Your task to perform on an android device: Play the new Bruno Mars video on YouTube Image 0: 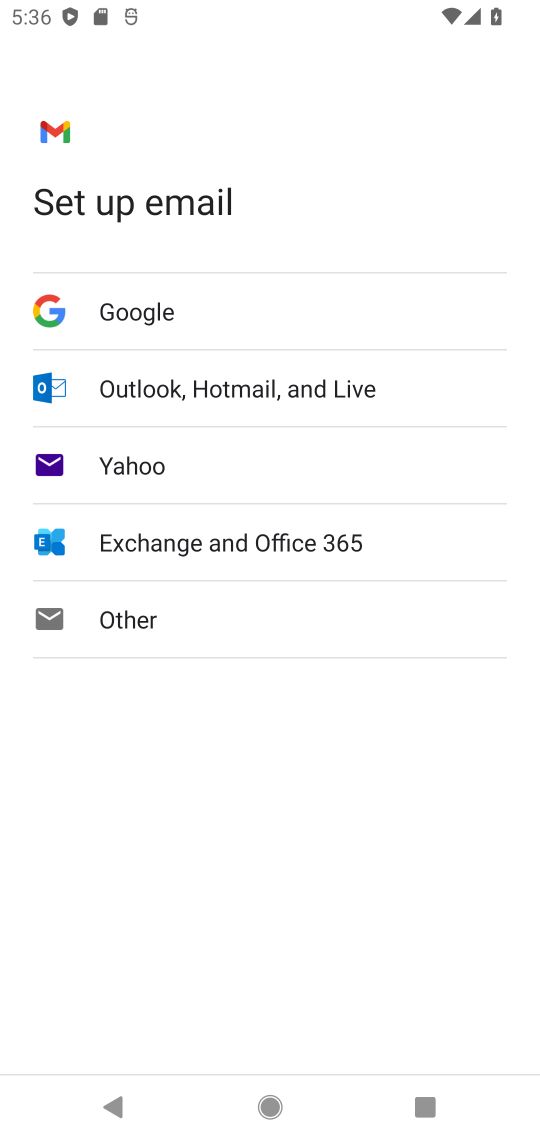
Step 0: press home button
Your task to perform on an android device: Play the new Bruno Mars video on YouTube Image 1: 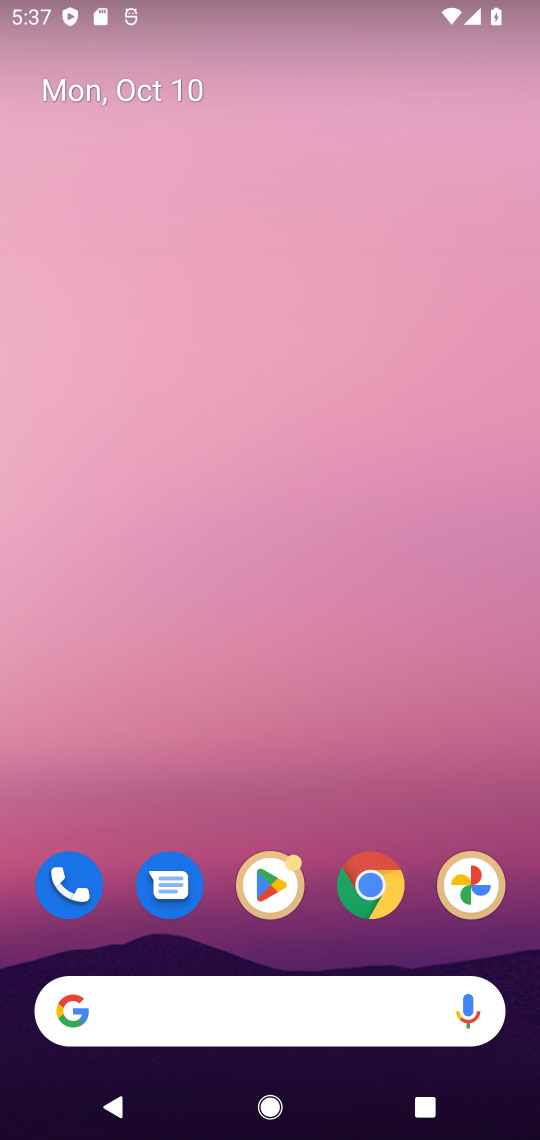
Step 1: drag from (360, 946) to (353, 293)
Your task to perform on an android device: Play the new Bruno Mars video on YouTube Image 2: 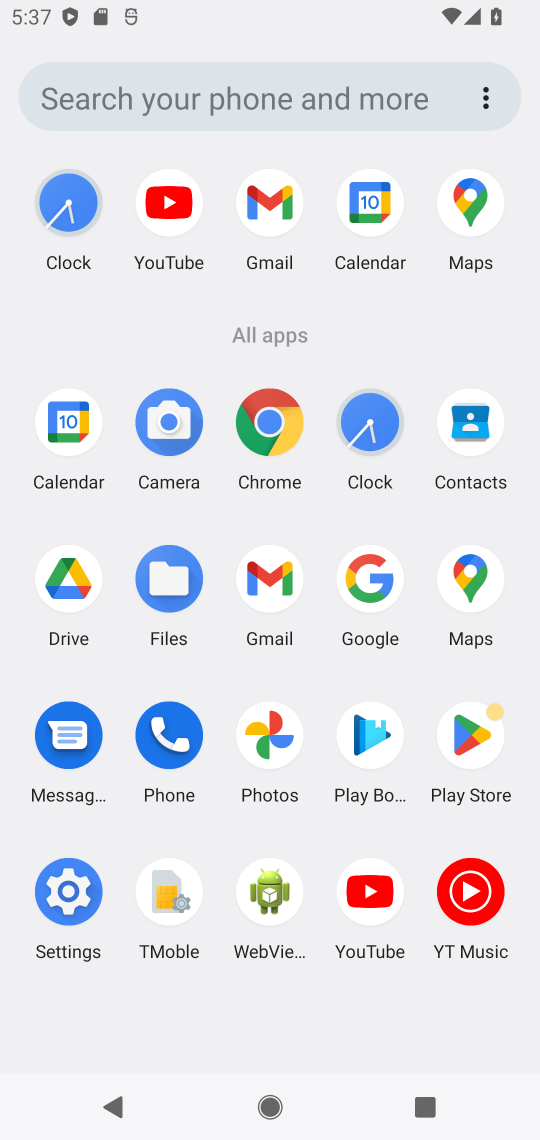
Step 2: click (175, 210)
Your task to perform on an android device: Play the new Bruno Mars video on YouTube Image 3: 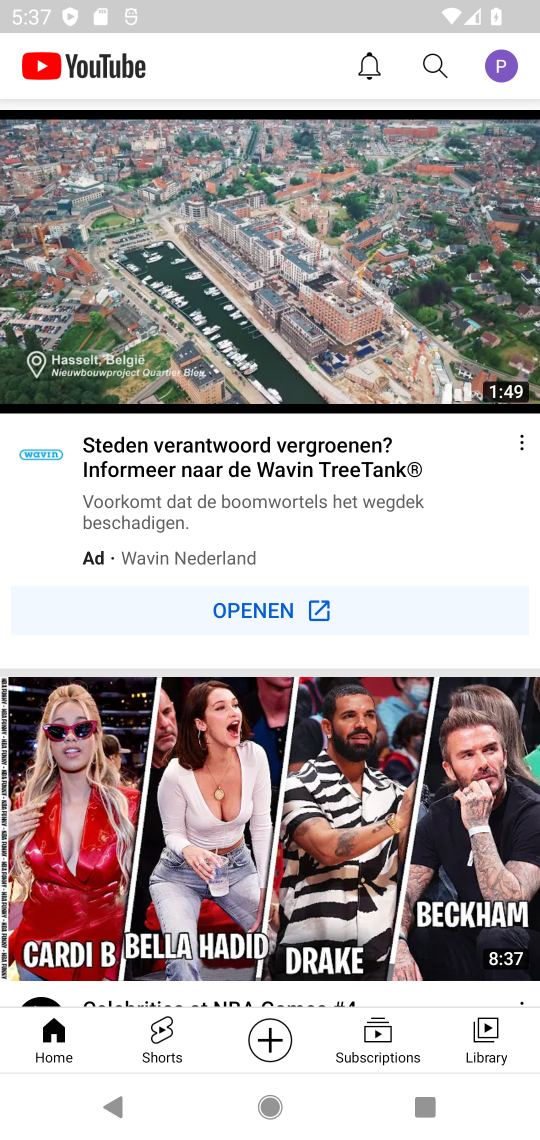
Step 3: click (441, 64)
Your task to perform on an android device: Play the new Bruno Mars video on YouTube Image 4: 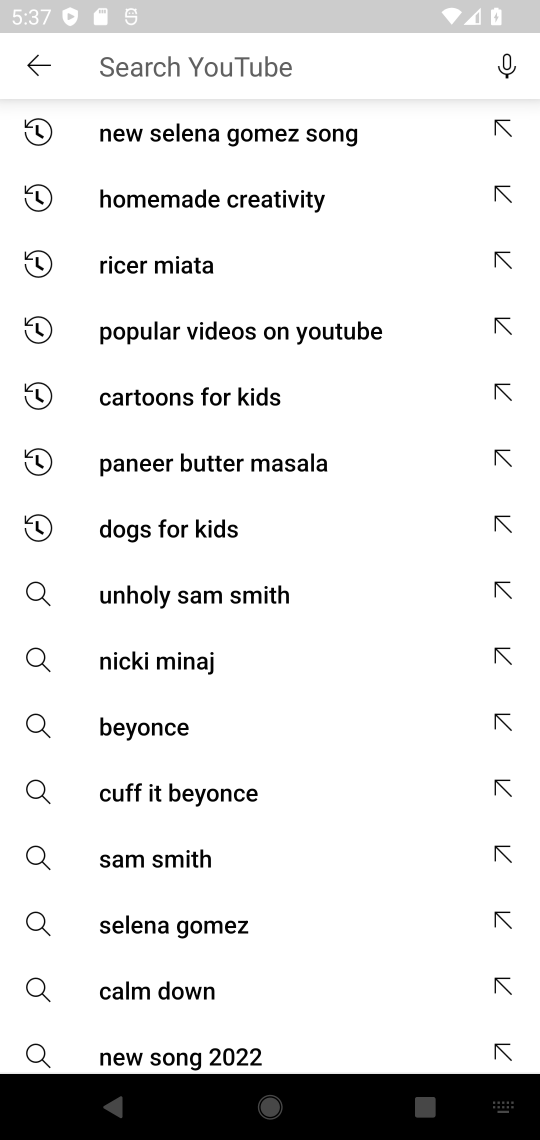
Step 4: click (299, 73)
Your task to perform on an android device: Play the new Bruno Mars video on YouTube Image 5: 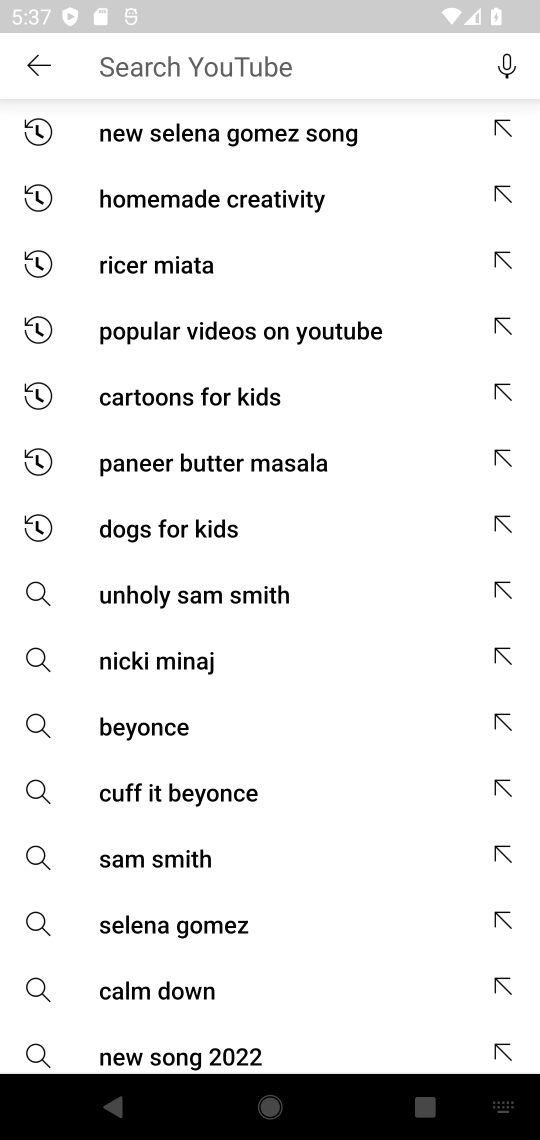
Step 5: type "new Bruno Mars video "
Your task to perform on an android device: Play the new Bruno Mars video on YouTube Image 6: 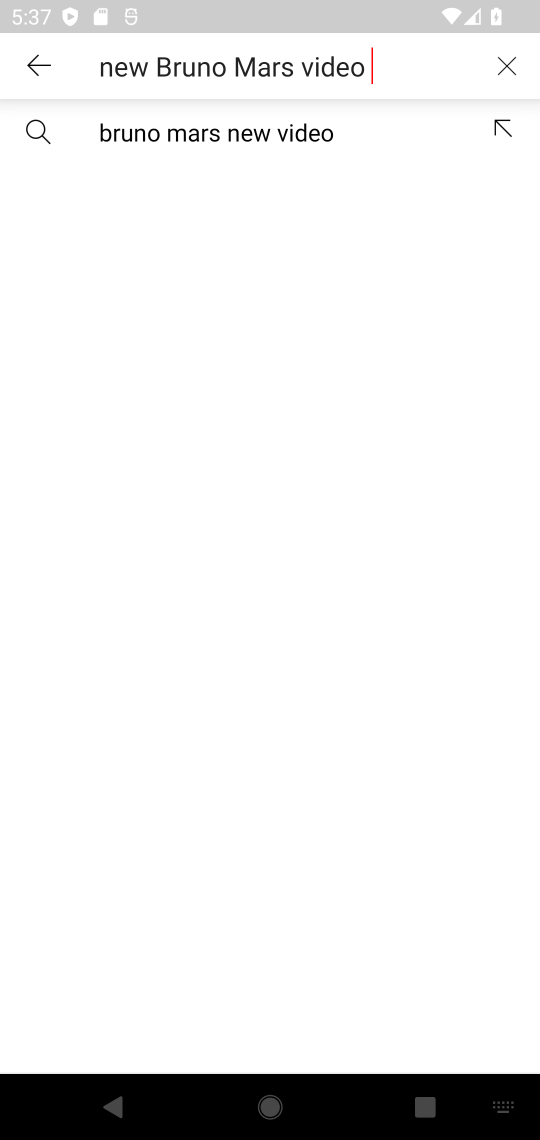
Step 6: click (302, 145)
Your task to perform on an android device: Play the new Bruno Mars video on YouTube Image 7: 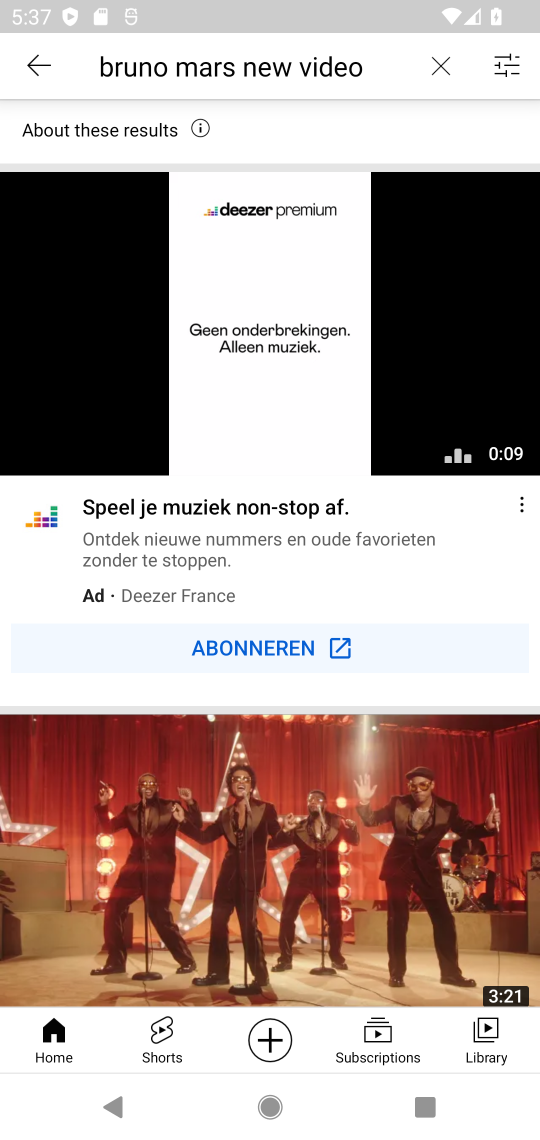
Step 7: drag from (481, 610) to (489, 73)
Your task to perform on an android device: Play the new Bruno Mars video on YouTube Image 8: 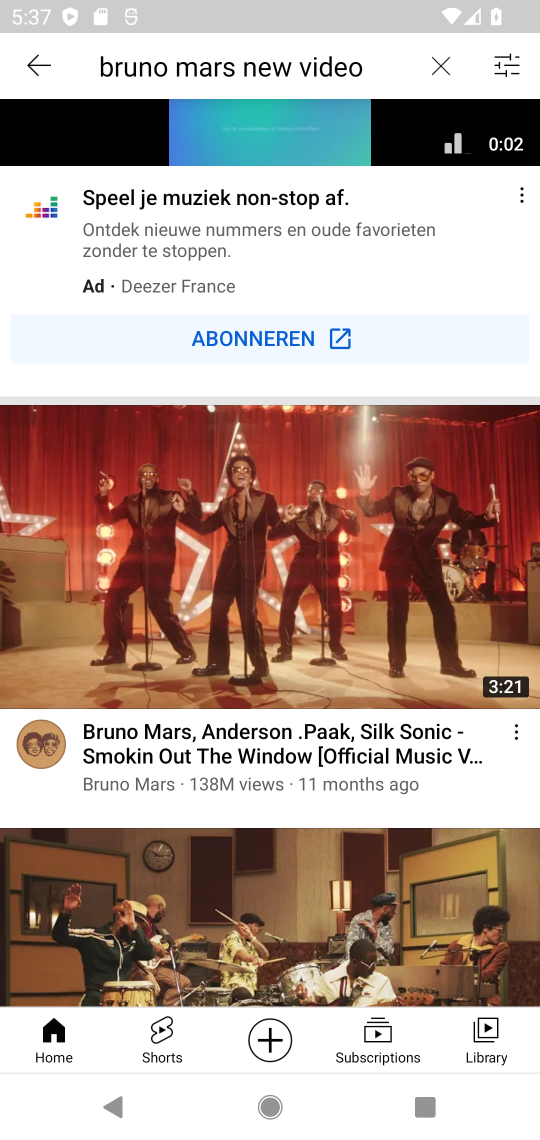
Step 8: drag from (249, 519) to (341, 242)
Your task to perform on an android device: Play the new Bruno Mars video on YouTube Image 9: 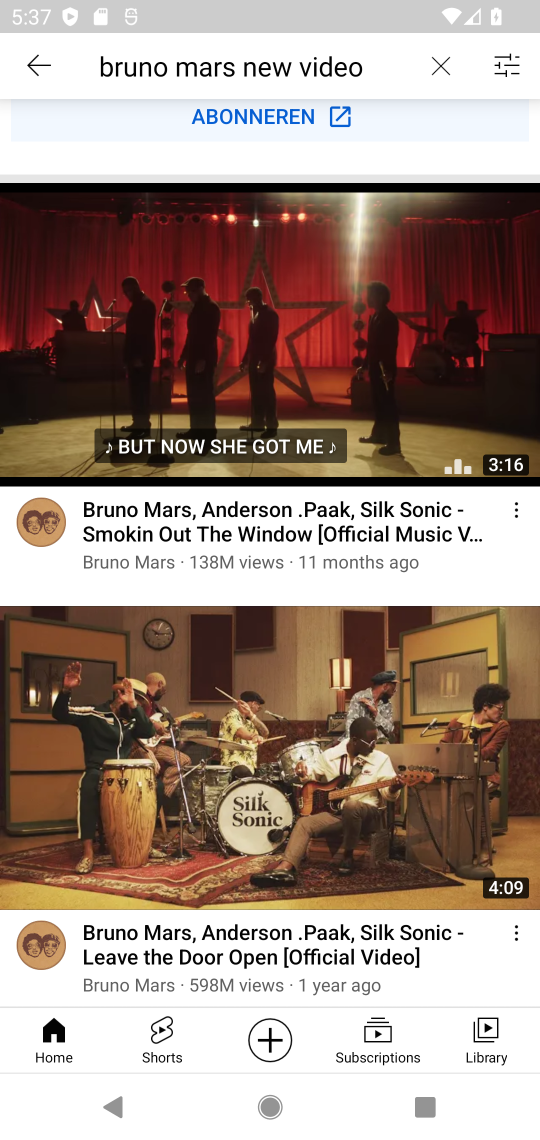
Step 9: click (393, 459)
Your task to perform on an android device: Play the new Bruno Mars video on YouTube Image 10: 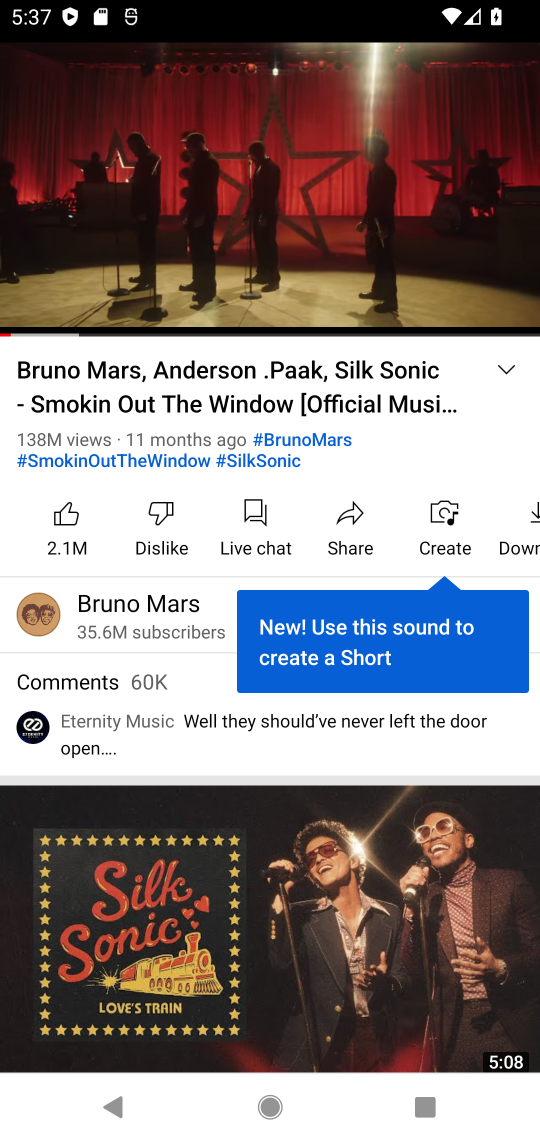
Step 10: click (105, 618)
Your task to perform on an android device: Play the new Bruno Mars video on YouTube Image 11: 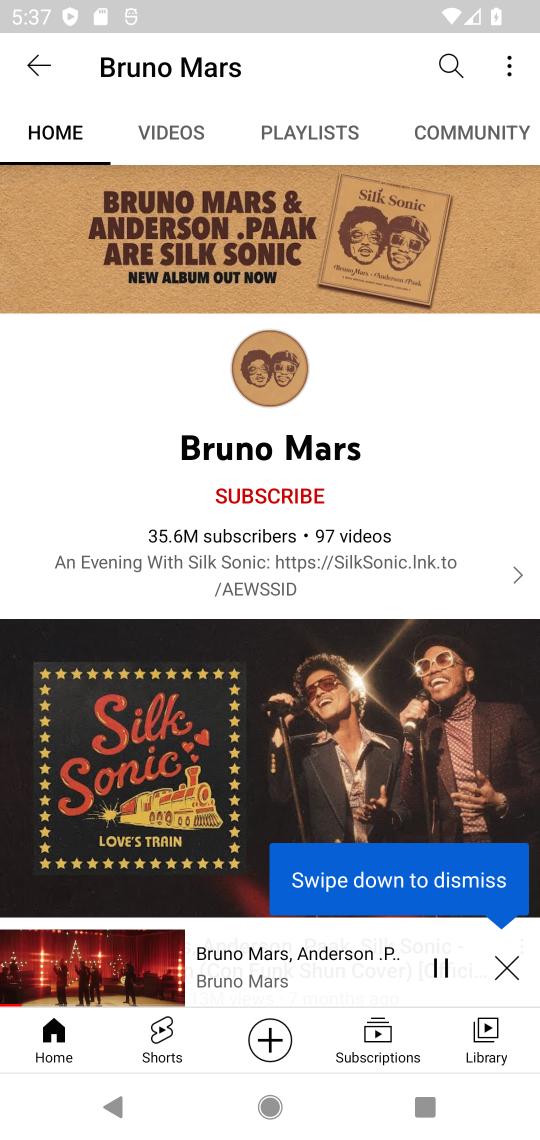
Step 11: click (158, 132)
Your task to perform on an android device: Play the new Bruno Mars video on YouTube Image 12: 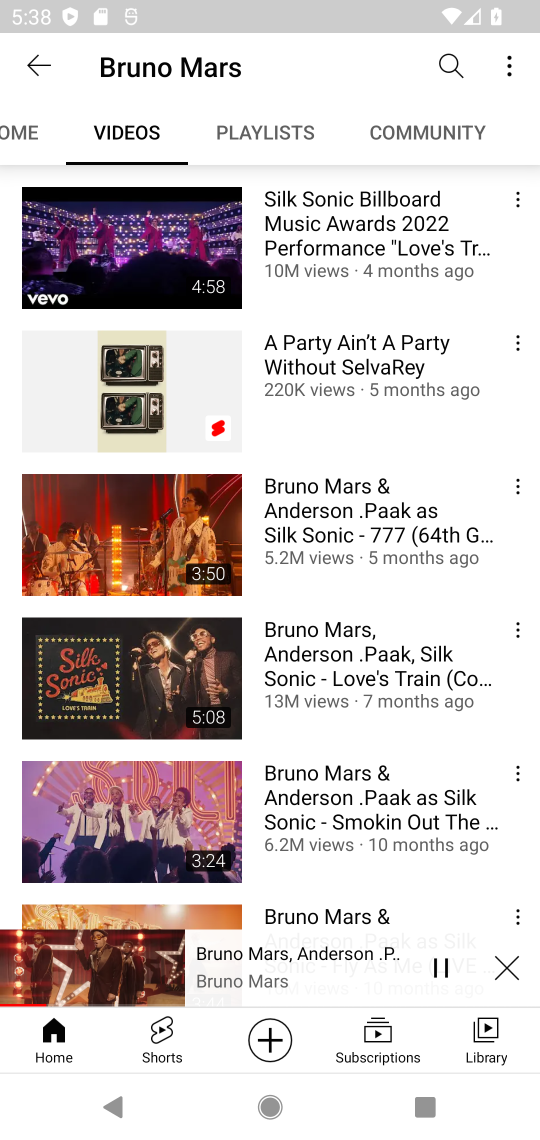
Step 12: click (297, 266)
Your task to perform on an android device: Play the new Bruno Mars video on YouTube Image 13: 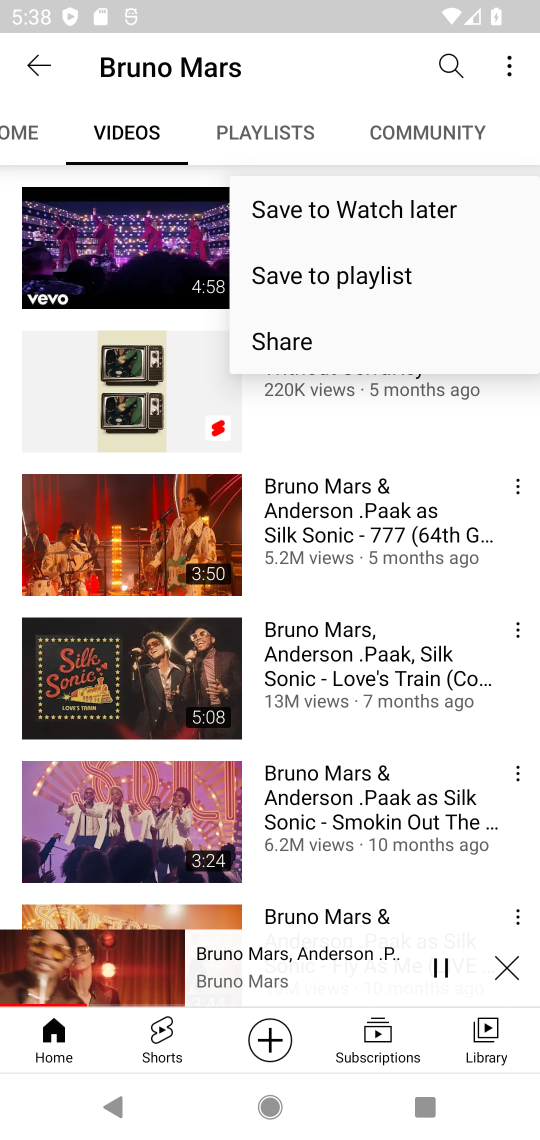
Step 13: click (186, 255)
Your task to perform on an android device: Play the new Bruno Mars video on YouTube Image 14: 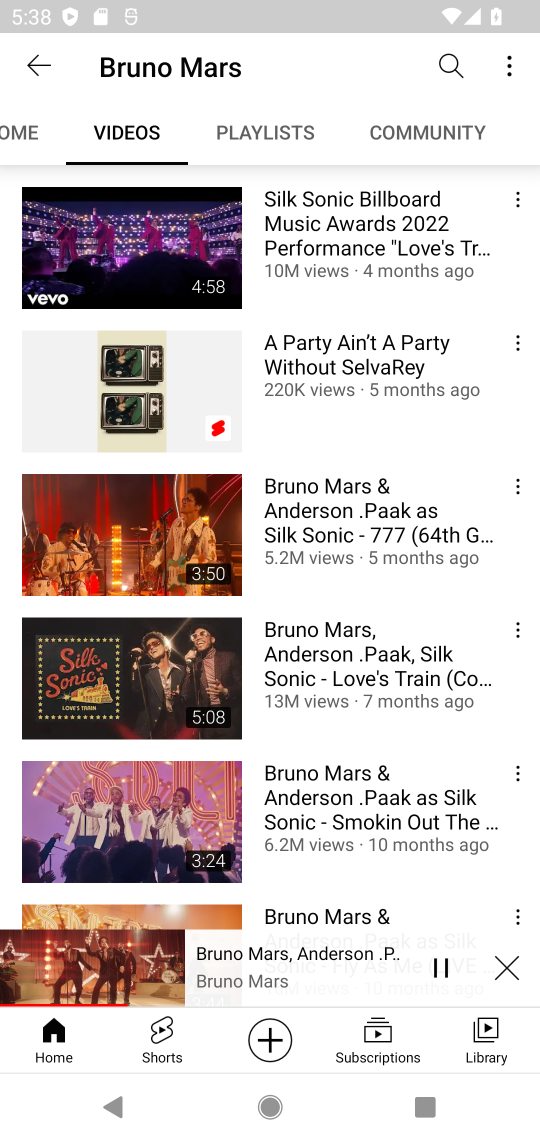
Step 14: click (179, 229)
Your task to perform on an android device: Play the new Bruno Mars video on YouTube Image 15: 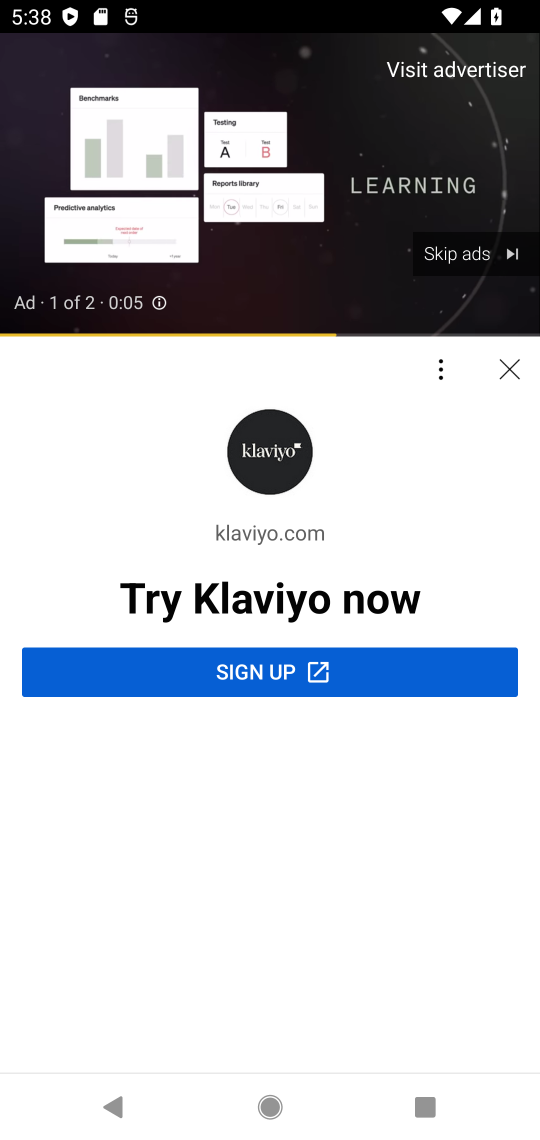
Step 15: click (470, 255)
Your task to perform on an android device: Play the new Bruno Mars video on YouTube Image 16: 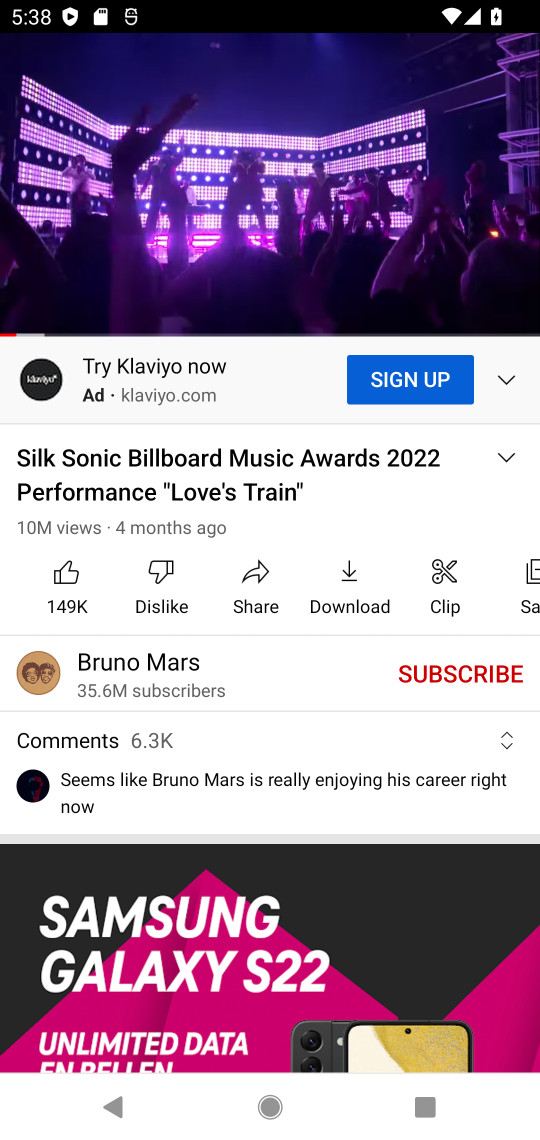
Step 16: task complete